Your task to perform on an android device: What's the news this week? Image 0: 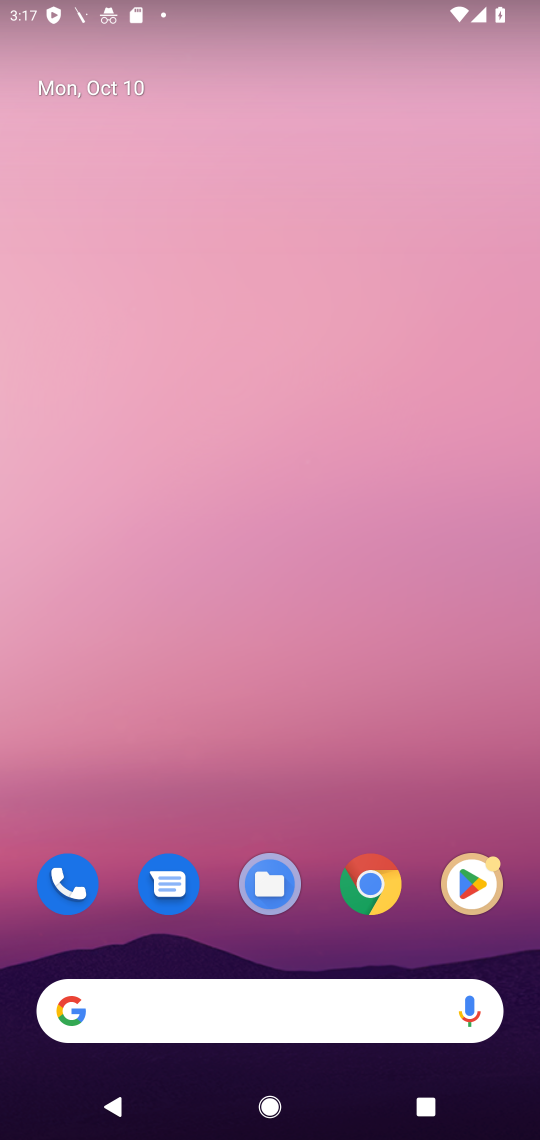
Step 0: click (305, 1009)
Your task to perform on an android device: What's the news this week? Image 1: 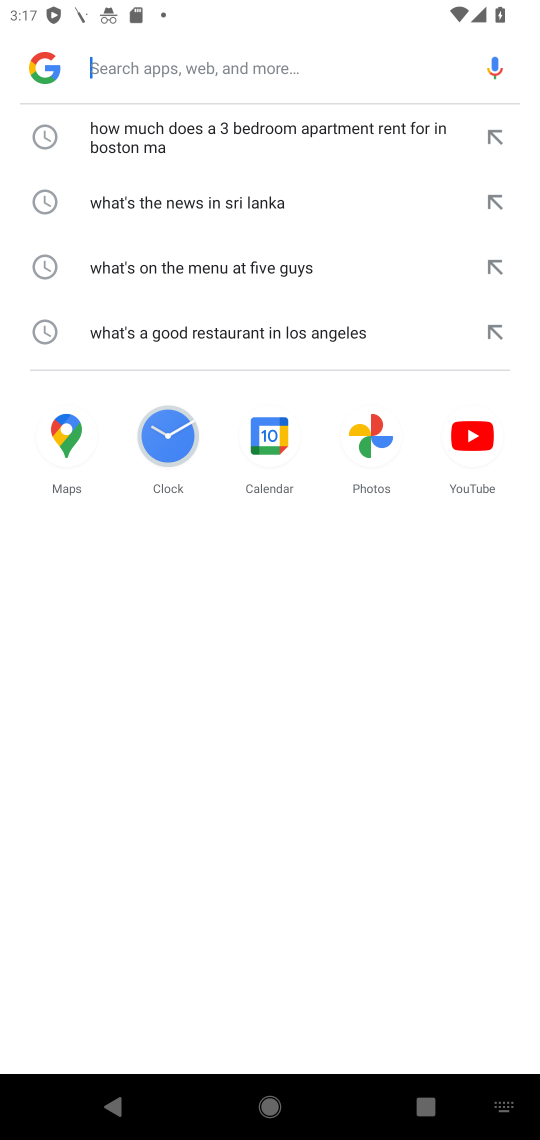
Step 1: type "What's the news this week?"
Your task to perform on an android device: What's the news this week? Image 2: 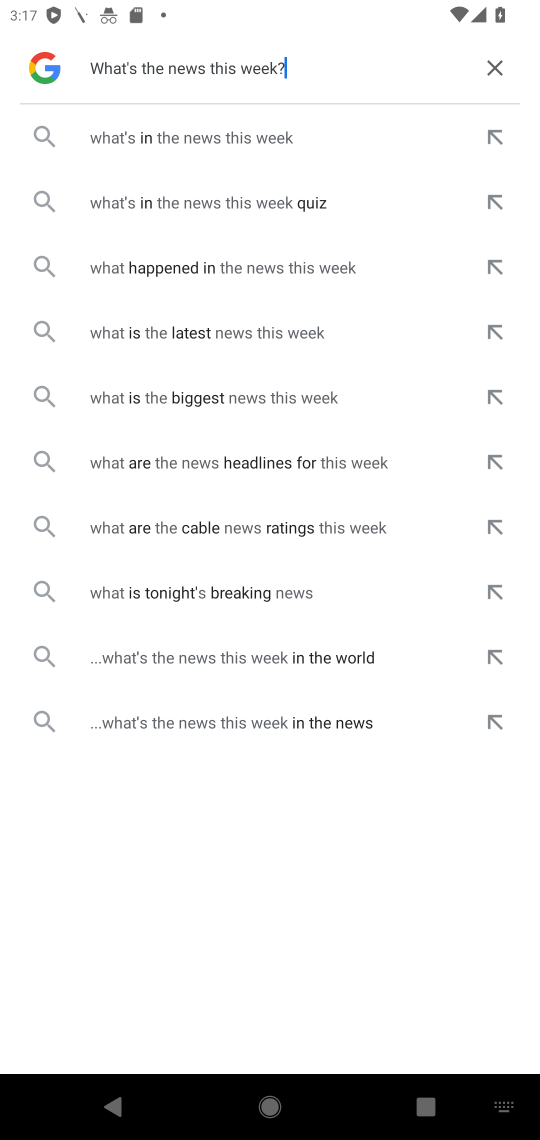
Step 2: click (260, 133)
Your task to perform on an android device: What's the news this week? Image 3: 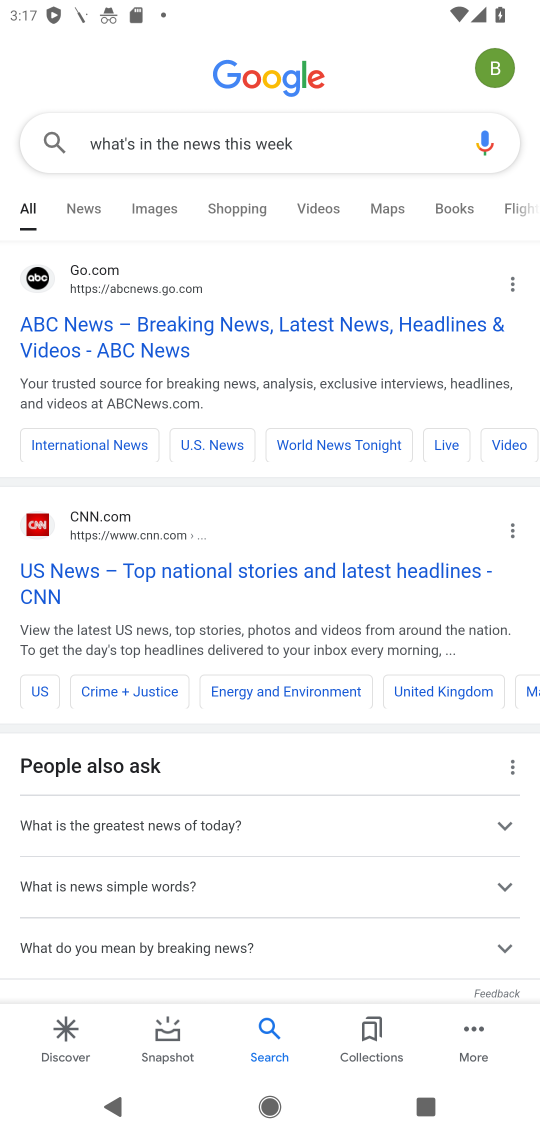
Step 3: click (204, 576)
Your task to perform on an android device: What's the news this week? Image 4: 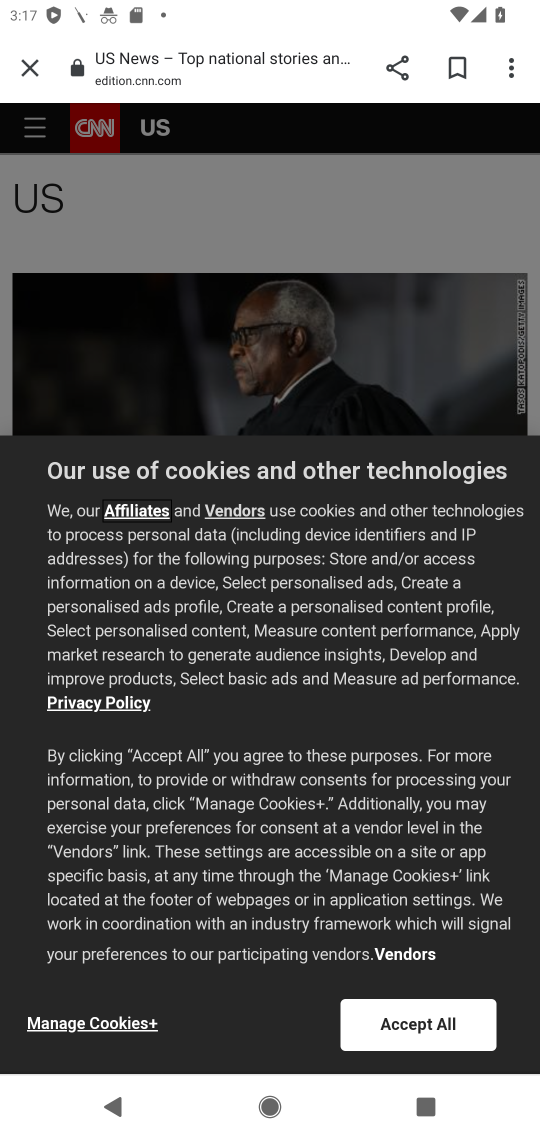
Step 4: click (377, 1019)
Your task to perform on an android device: What's the news this week? Image 5: 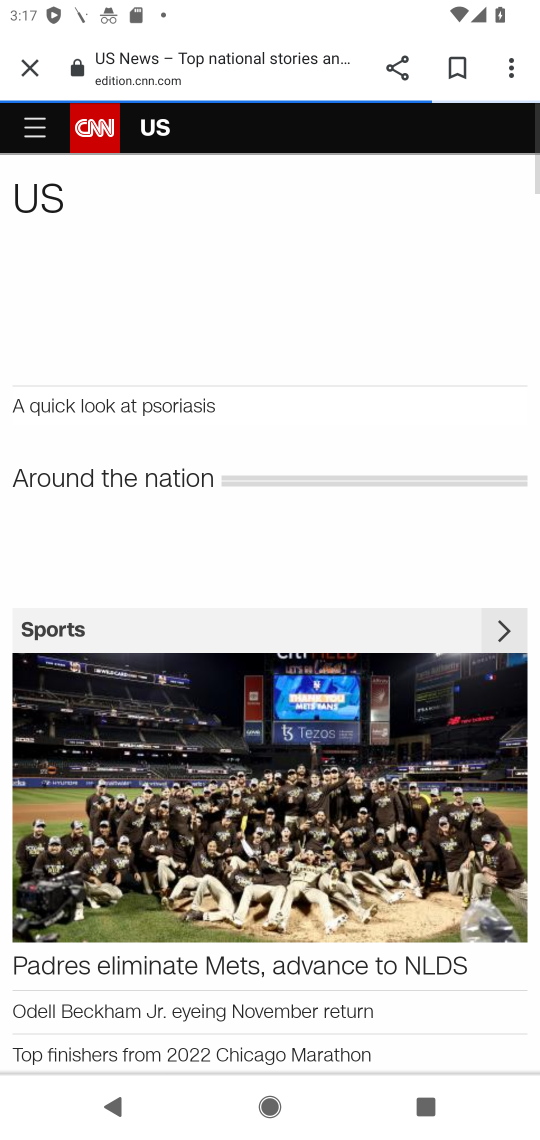
Step 5: task complete